Your task to perform on an android device: Open location settings Image 0: 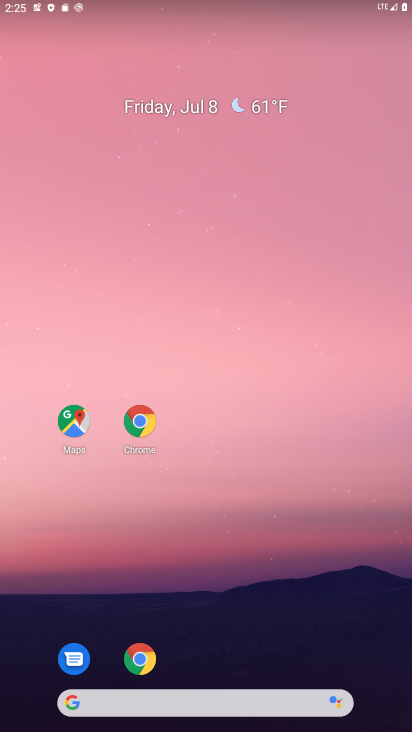
Step 0: drag from (182, 684) to (133, 217)
Your task to perform on an android device: Open location settings Image 1: 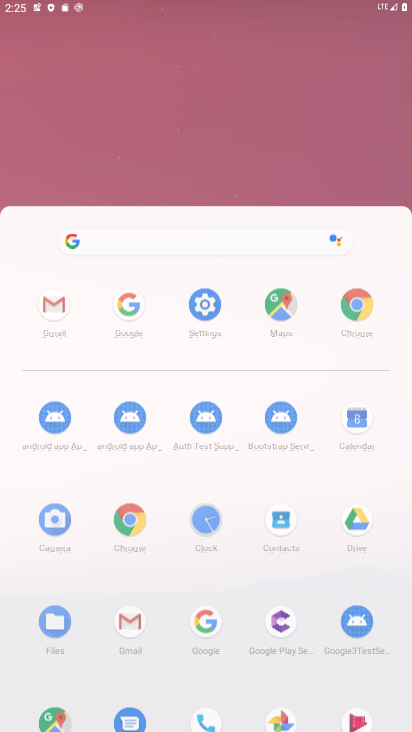
Step 1: click (133, 217)
Your task to perform on an android device: Open location settings Image 2: 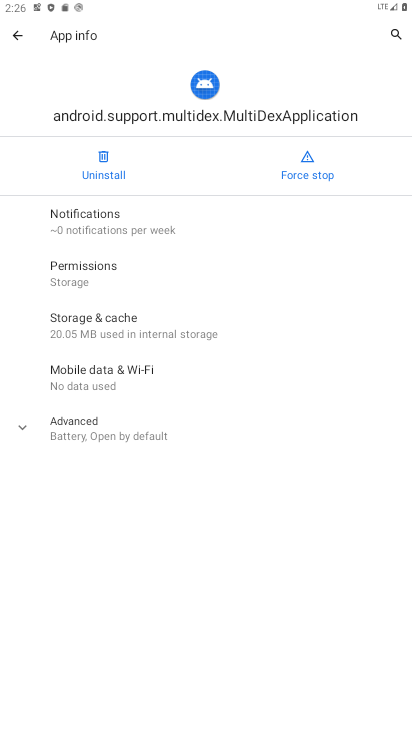
Step 2: click (9, 34)
Your task to perform on an android device: Open location settings Image 3: 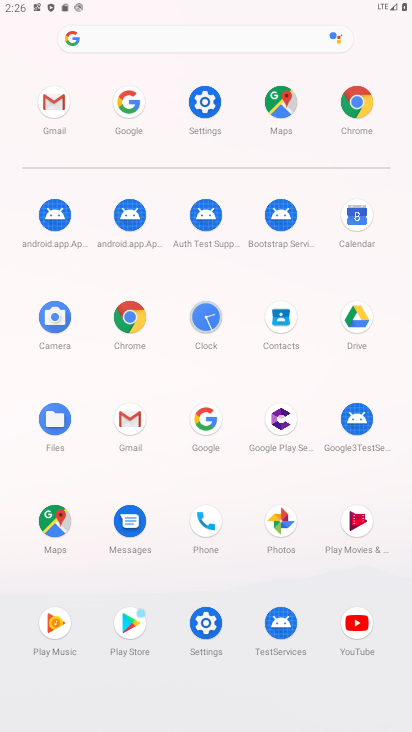
Step 3: click (206, 104)
Your task to perform on an android device: Open location settings Image 4: 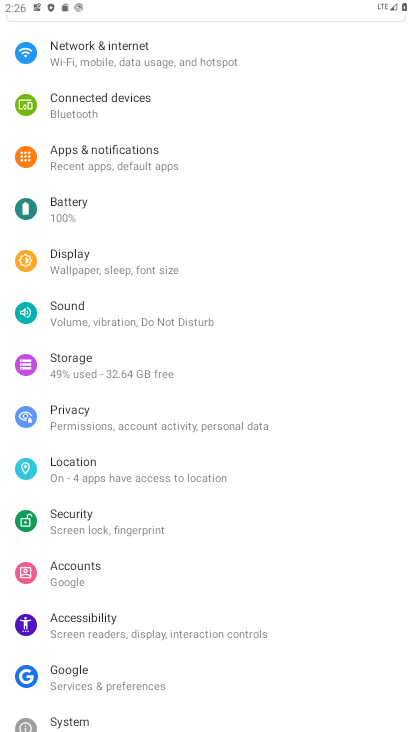
Step 4: click (33, 461)
Your task to perform on an android device: Open location settings Image 5: 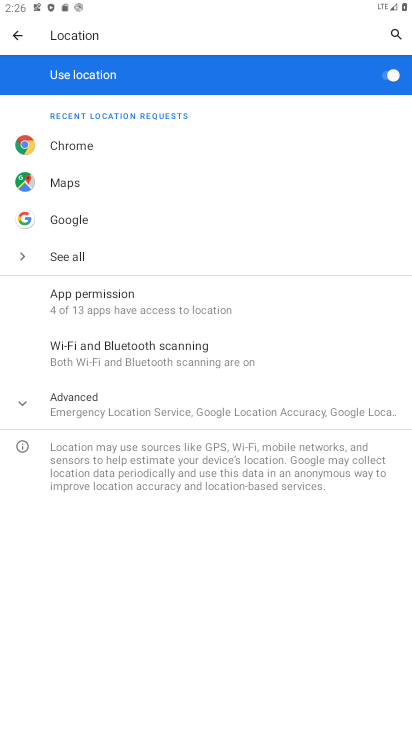
Step 5: task complete